Your task to perform on an android device: turn off javascript in the chrome app Image 0: 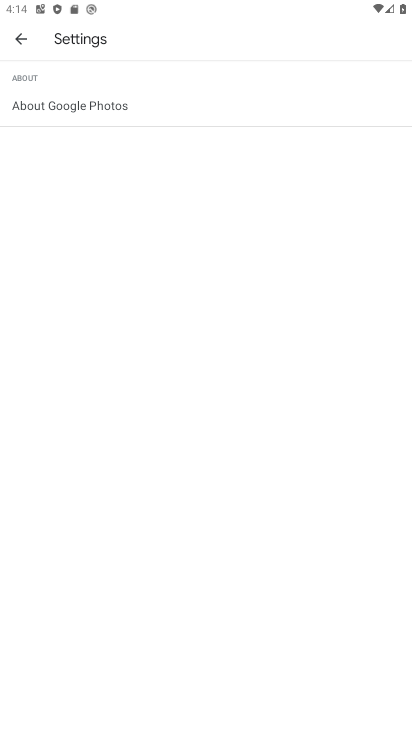
Step 0: press home button
Your task to perform on an android device: turn off javascript in the chrome app Image 1: 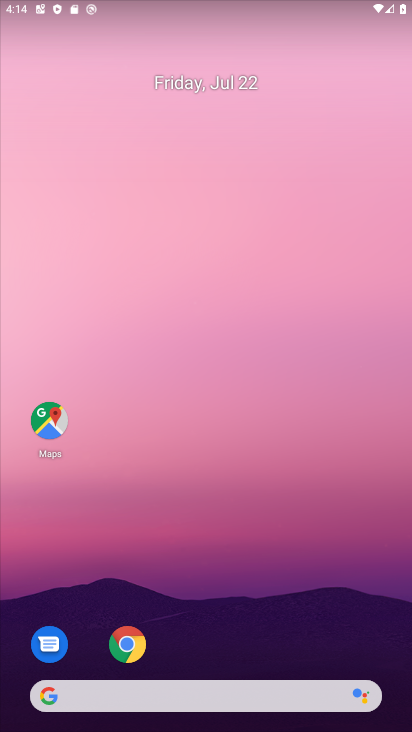
Step 1: click (129, 646)
Your task to perform on an android device: turn off javascript in the chrome app Image 2: 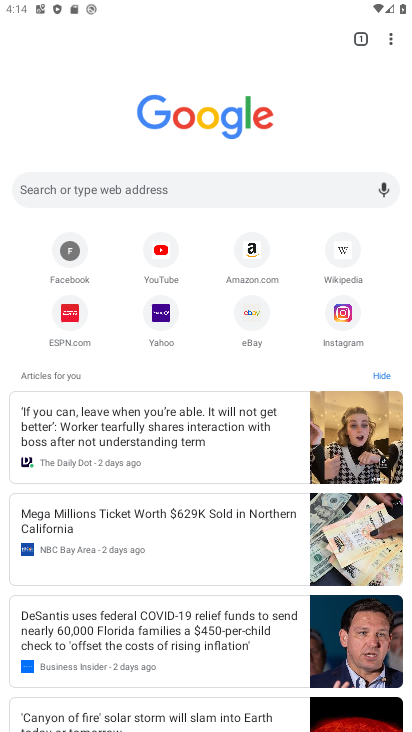
Step 2: click (388, 43)
Your task to perform on an android device: turn off javascript in the chrome app Image 3: 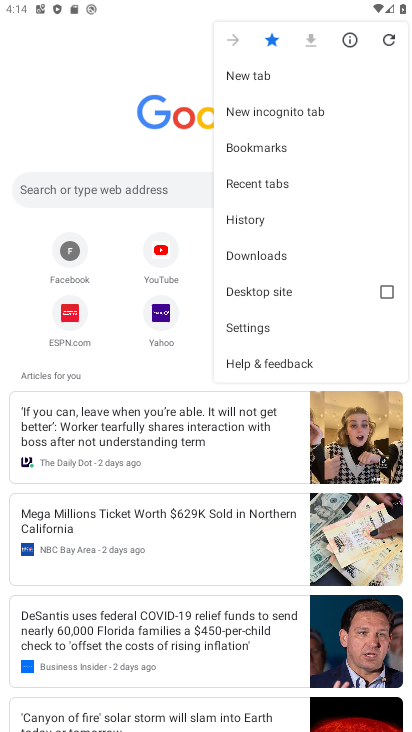
Step 3: click (246, 331)
Your task to perform on an android device: turn off javascript in the chrome app Image 4: 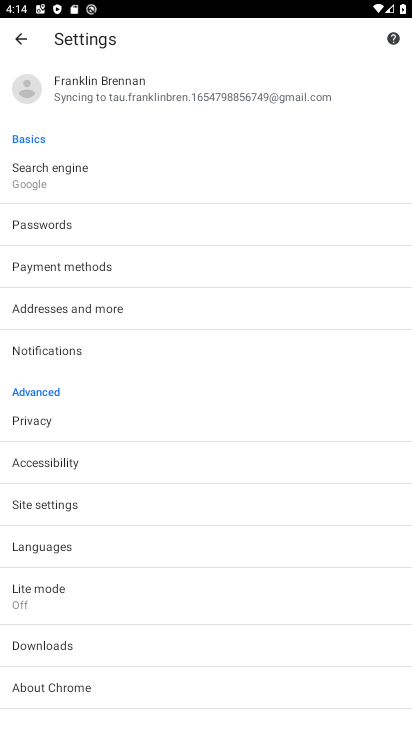
Step 4: click (59, 507)
Your task to perform on an android device: turn off javascript in the chrome app Image 5: 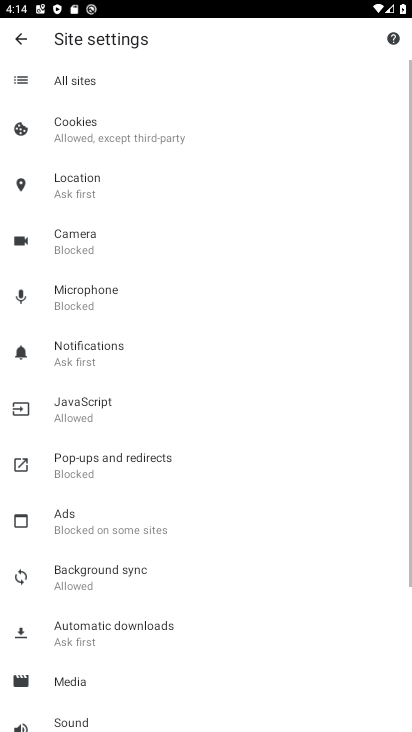
Step 5: click (97, 406)
Your task to perform on an android device: turn off javascript in the chrome app Image 6: 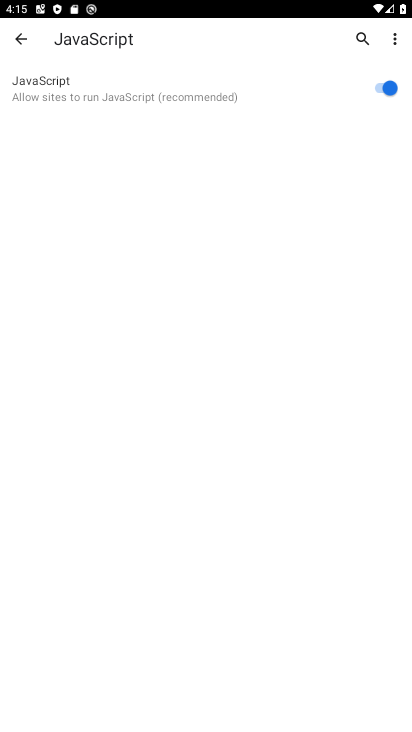
Step 6: click (387, 82)
Your task to perform on an android device: turn off javascript in the chrome app Image 7: 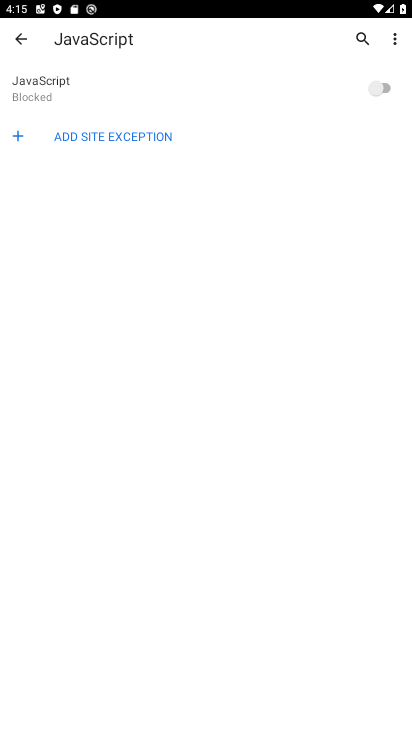
Step 7: task complete